Your task to perform on an android device: toggle location history Image 0: 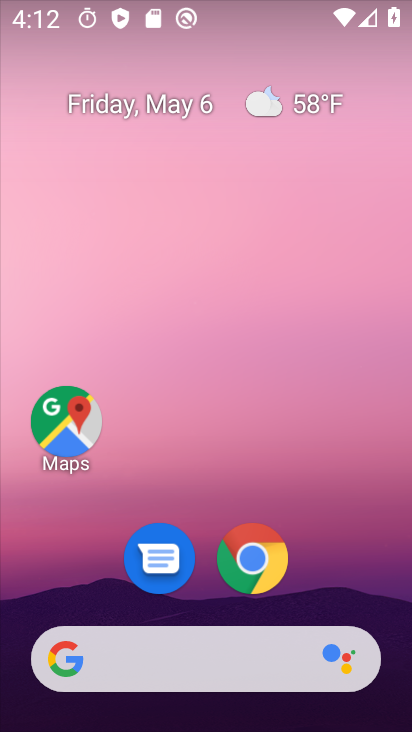
Step 0: drag from (292, 629) to (337, 10)
Your task to perform on an android device: toggle location history Image 1: 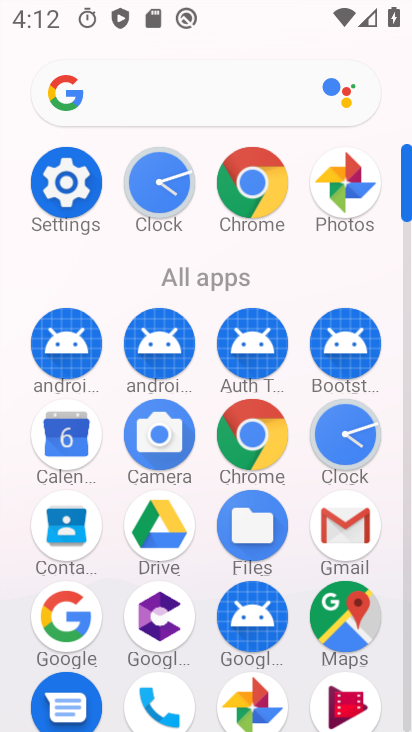
Step 1: click (92, 201)
Your task to perform on an android device: toggle location history Image 2: 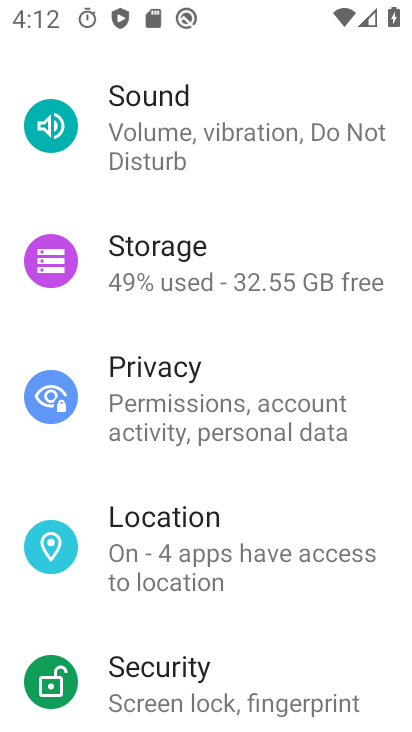
Step 2: click (156, 563)
Your task to perform on an android device: toggle location history Image 3: 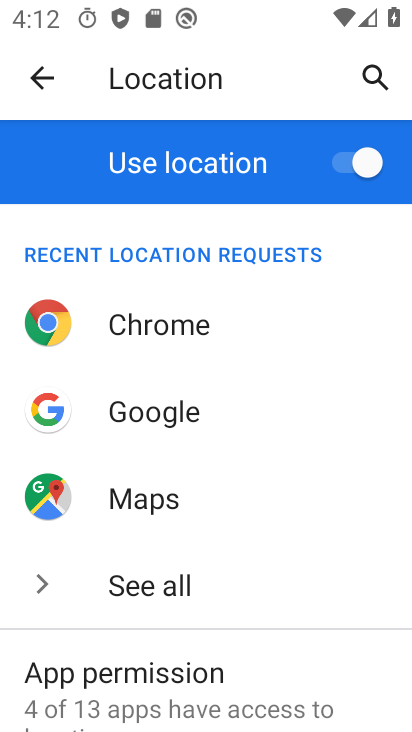
Step 3: drag from (165, 730) to (316, 149)
Your task to perform on an android device: toggle location history Image 4: 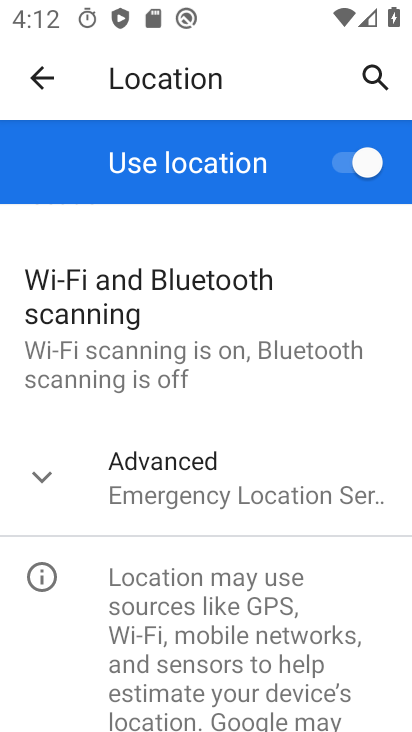
Step 4: drag from (167, 728) to (190, 272)
Your task to perform on an android device: toggle location history Image 5: 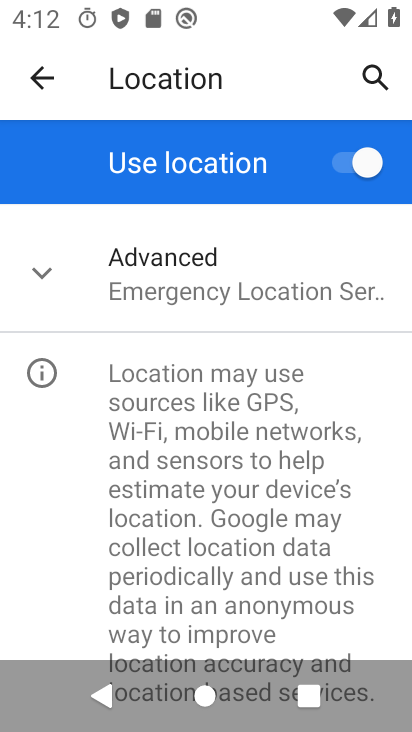
Step 5: click (190, 266)
Your task to perform on an android device: toggle location history Image 6: 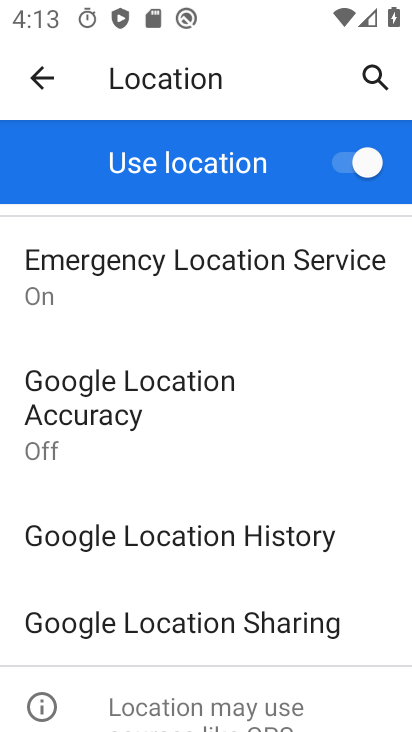
Step 6: click (168, 532)
Your task to perform on an android device: toggle location history Image 7: 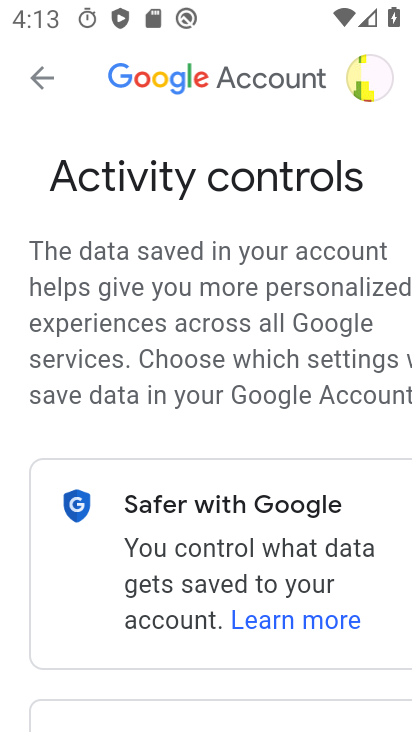
Step 7: drag from (205, 729) to (205, 291)
Your task to perform on an android device: toggle location history Image 8: 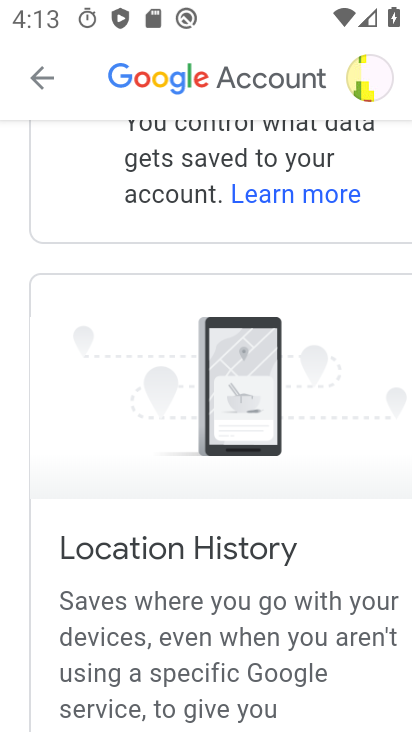
Step 8: drag from (272, 646) to (14, 607)
Your task to perform on an android device: toggle location history Image 9: 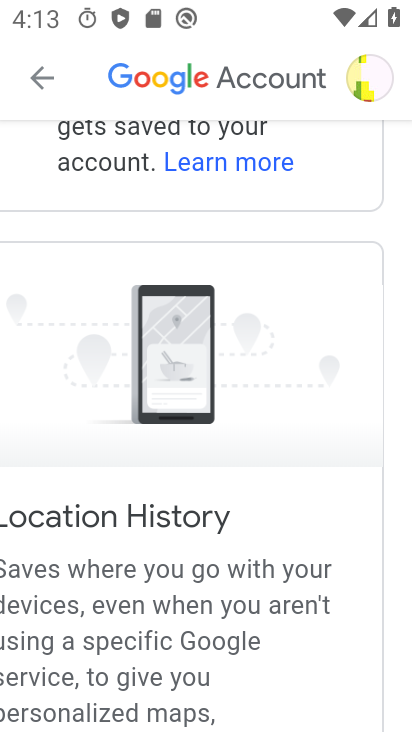
Step 9: click (86, 519)
Your task to perform on an android device: toggle location history Image 10: 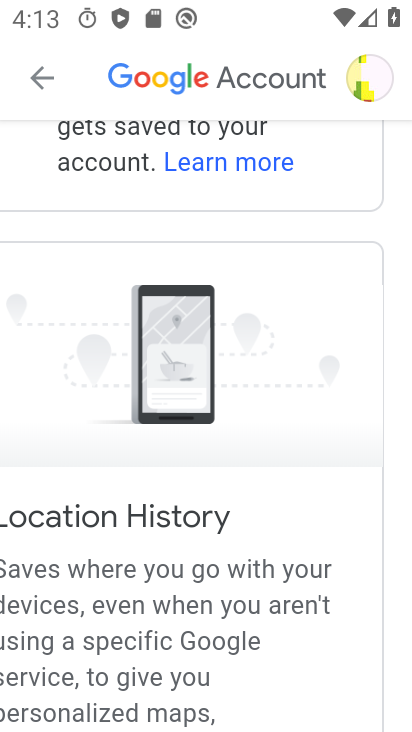
Step 10: drag from (249, 130) to (205, 669)
Your task to perform on an android device: toggle location history Image 11: 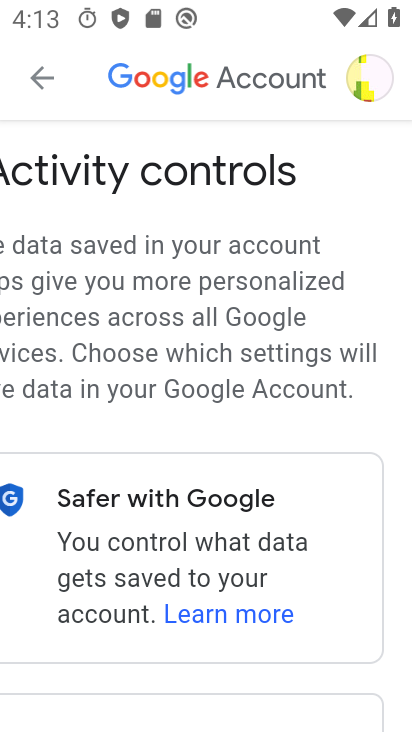
Step 11: drag from (127, 728) to (229, 200)
Your task to perform on an android device: toggle location history Image 12: 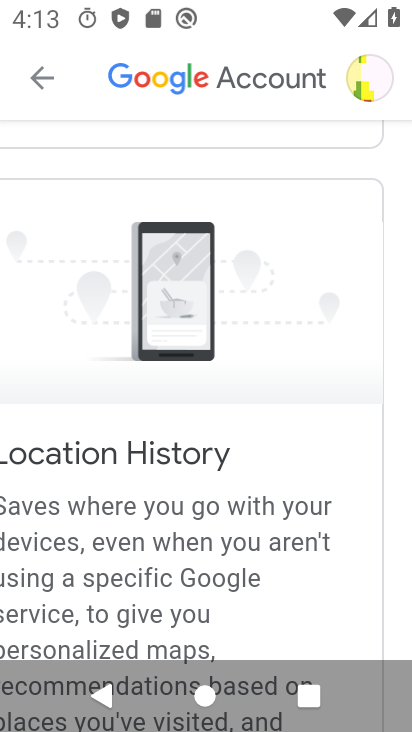
Step 12: drag from (166, 629) to (217, 244)
Your task to perform on an android device: toggle location history Image 13: 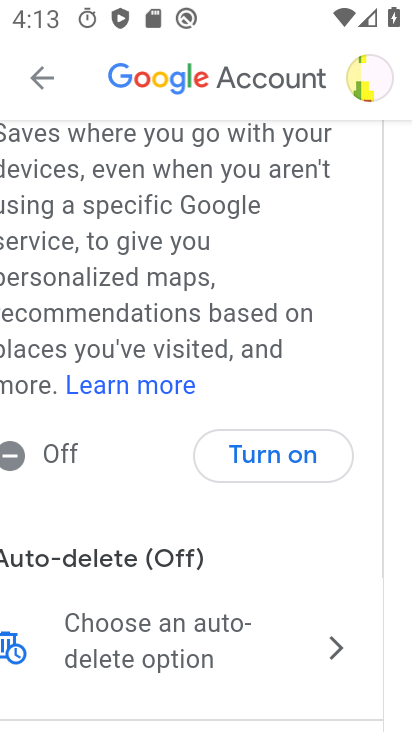
Step 13: click (266, 453)
Your task to perform on an android device: toggle location history Image 14: 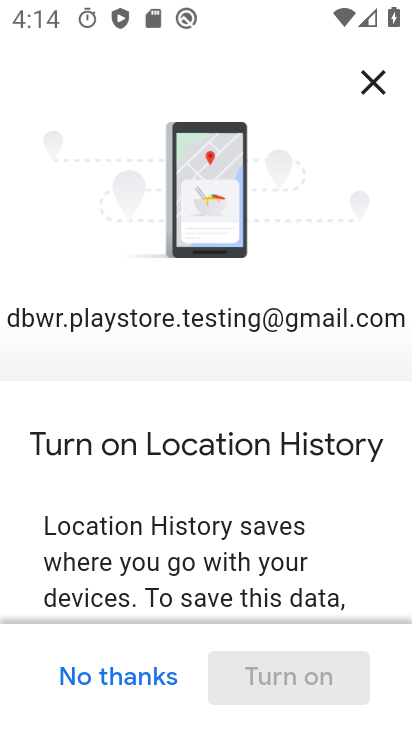
Step 14: click (129, 677)
Your task to perform on an android device: toggle location history Image 15: 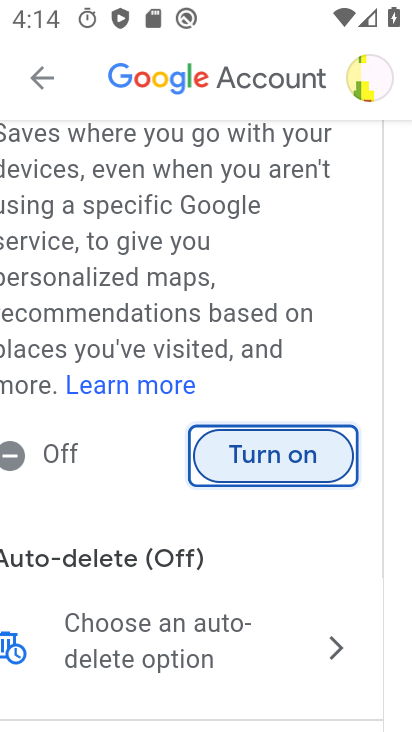
Step 15: click (296, 467)
Your task to perform on an android device: toggle location history Image 16: 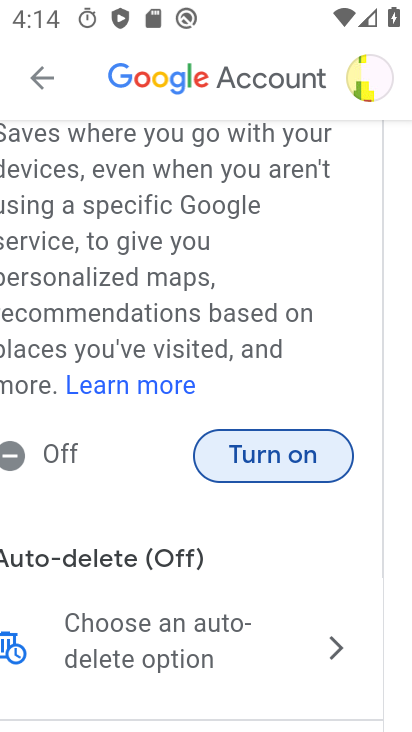
Step 16: click (296, 467)
Your task to perform on an android device: toggle location history Image 17: 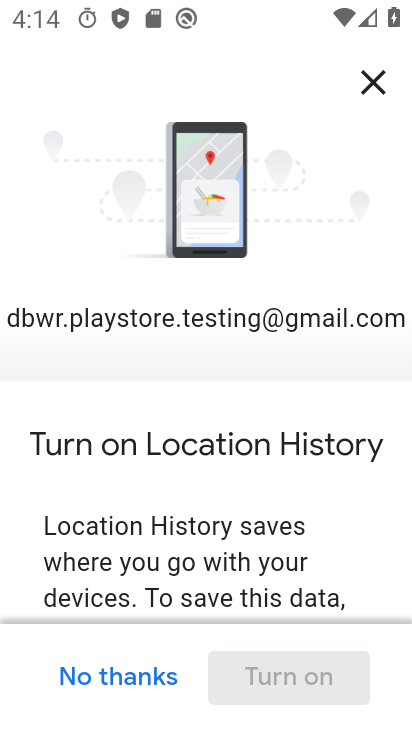
Step 17: task complete